Your task to perform on an android device: Go to wifi settings Image 0: 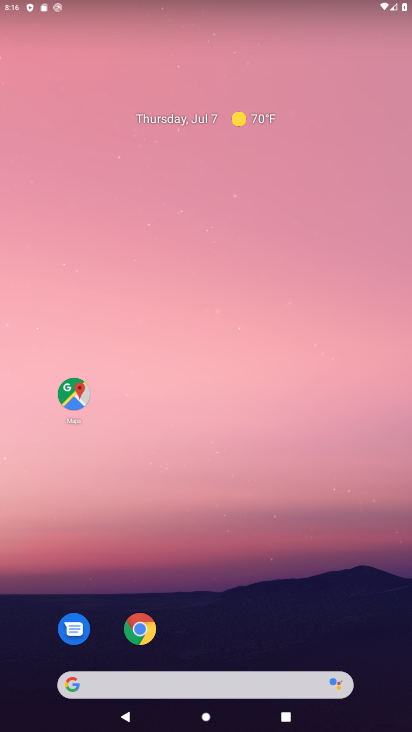
Step 0: drag from (225, 657) to (291, 209)
Your task to perform on an android device: Go to wifi settings Image 1: 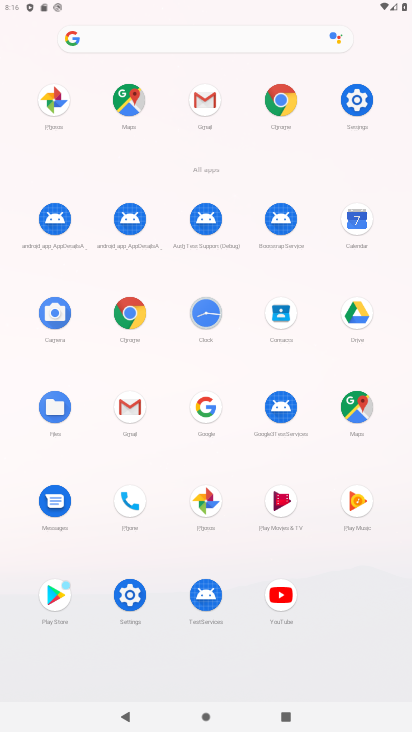
Step 1: click (125, 593)
Your task to perform on an android device: Go to wifi settings Image 2: 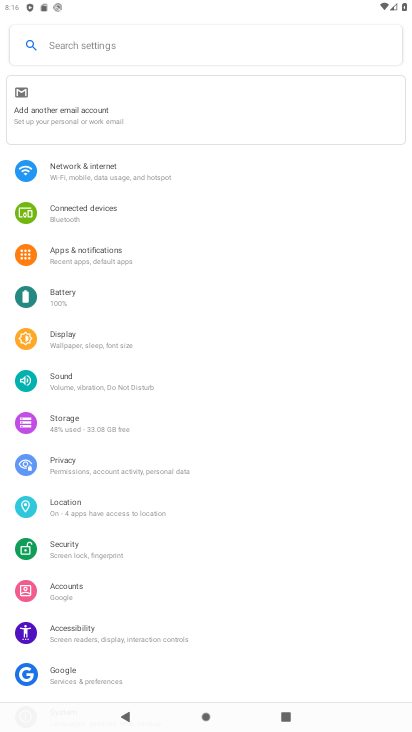
Step 2: click (155, 171)
Your task to perform on an android device: Go to wifi settings Image 3: 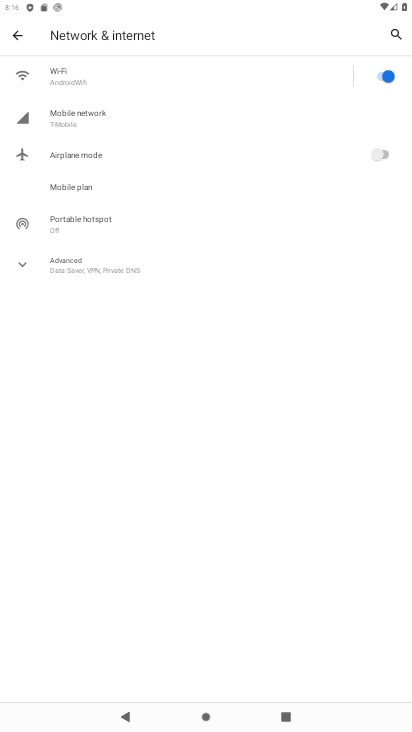
Step 3: click (99, 79)
Your task to perform on an android device: Go to wifi settings Image 4: 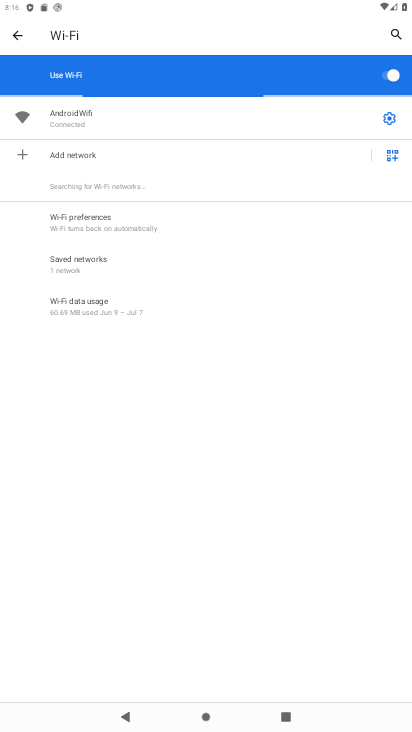
Step 4: task complete